Your task to perform on an android device: Search for Italian restaurants on Maps Image 0: 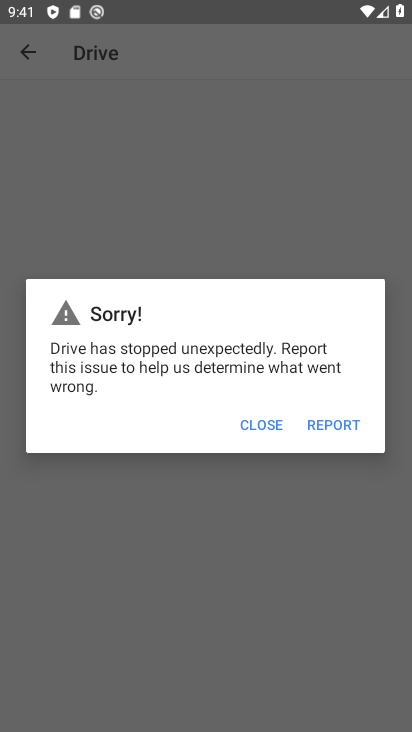
Step 0: click (261, 422)
Your task to perform on an android device: Search for Italian restaurants on Maps Image 1: 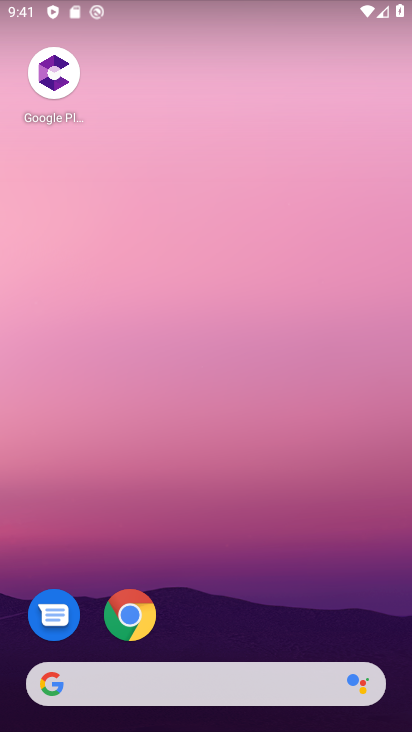
Step 1: drag from (214, 656) to (185, 289)
Your task to perform on an android device: Search for Italian restaurants on Maps Image 2: 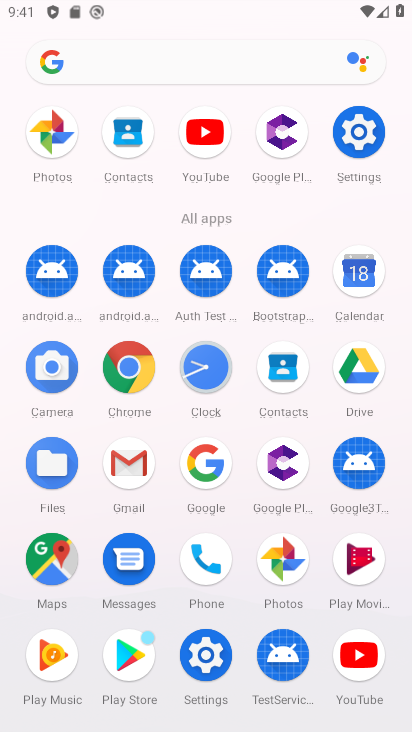
Step 2: click (49, 558)
Your task to perform on an android device: Search for Italian restaurants on Maps Image 3: 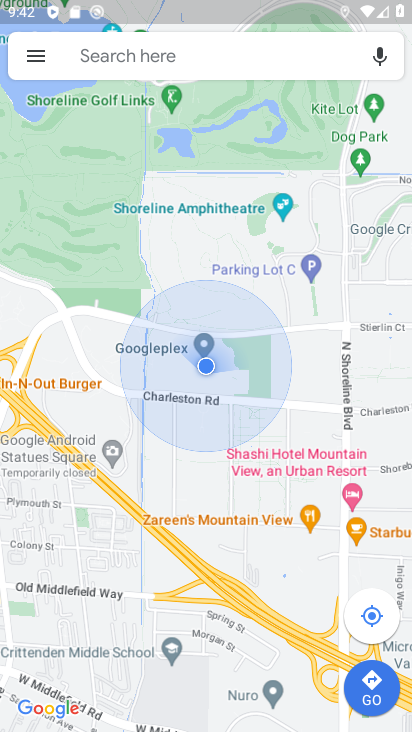
Step 3: click (89, 53)
Your task to perform on an android device: Search for Italian restaurants on Maps Image 4: 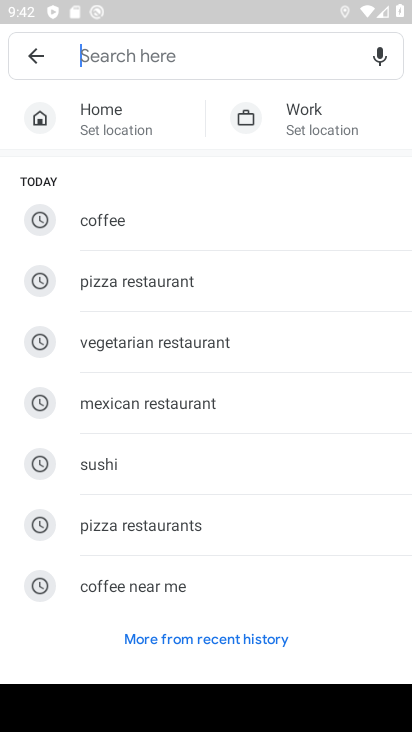
Step 4: type "italian restaurants"
Your task to perform on an android device: Search for Italian restaurants on Maps Image 5: 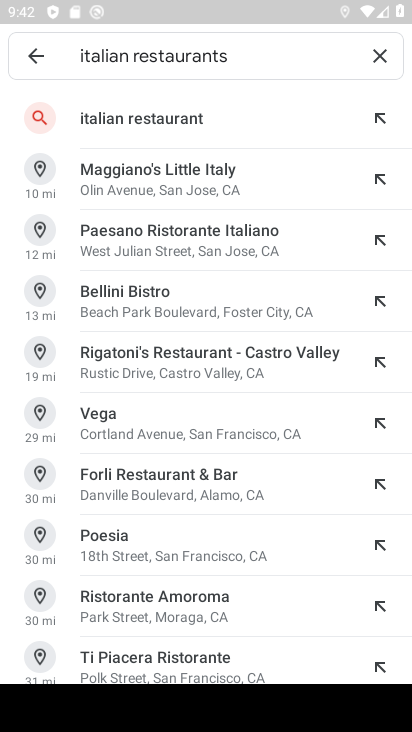
Step 5: click (173, 128)
Your task to perform on an android device: Search for Italian restaurants on Maps Image 6: 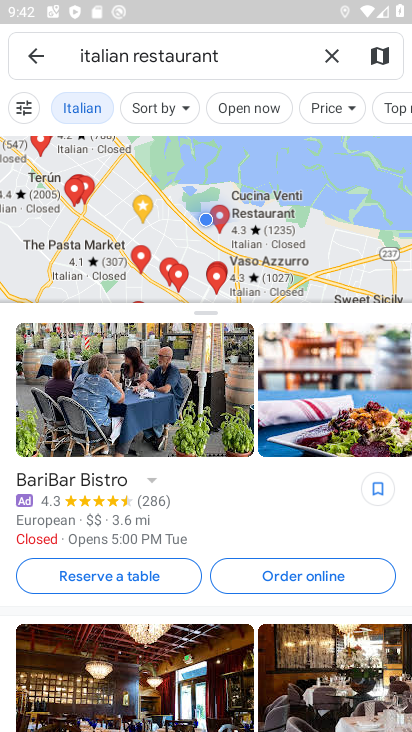
Step 6: task complete